Your task to perform on an android device: turn off notifications in google photos Image 0: 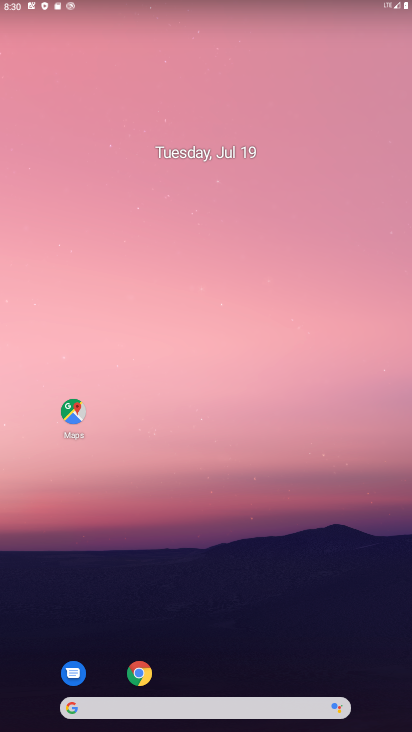
Step 0: drag from (377, 684) to (246, 19)
Your task to perform on an android device: turn off notifications in google photos Image 1: 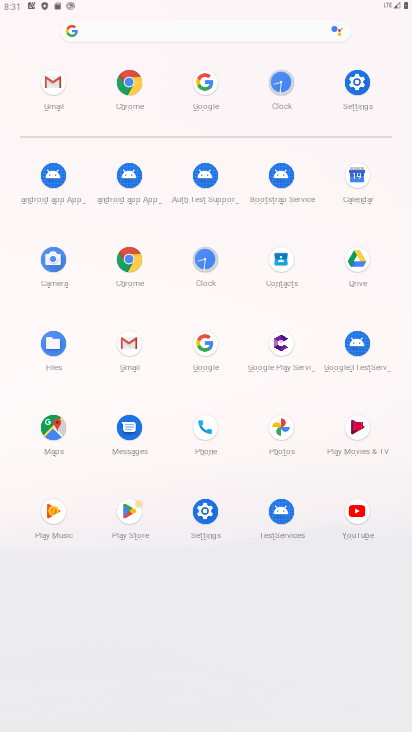
Step 1: click (278, 426)
Your task to perform on an android device: turn off notifications in google photos Image 2: 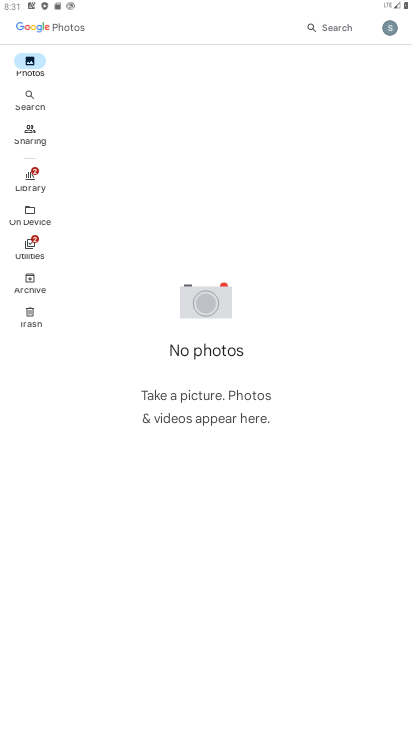
Step 2: click (392, 27)
Your task to perform on an android device: turn off notifications in google photos Image 3: 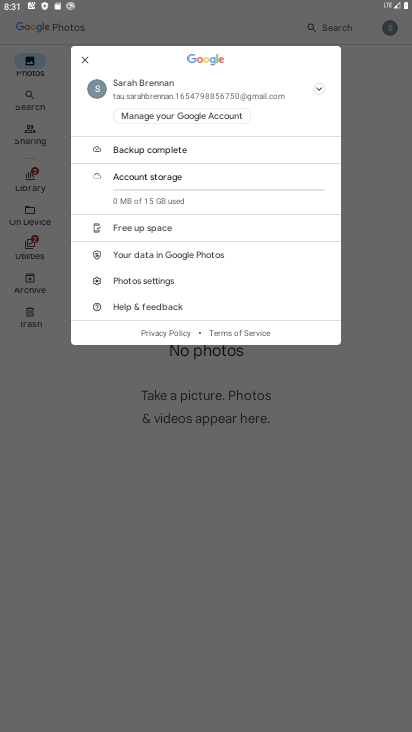
Step 3: click (146, 279)
Your task to perform on an android device: turn off notifications in google photos Image 4: 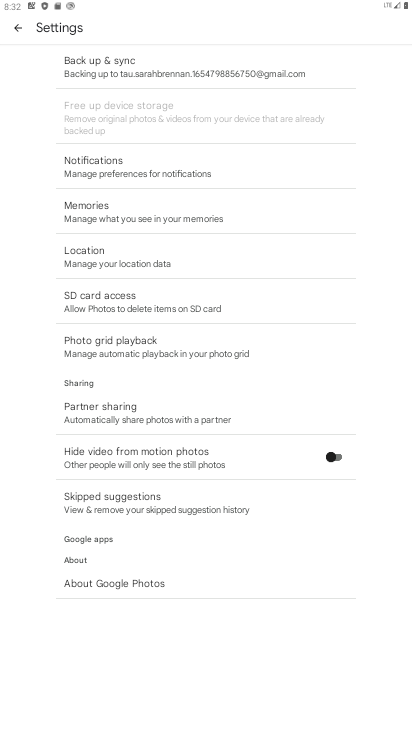
Step 4: click (102, 175)
Your task to perform on an android device: turn off notifications in google photos Image 5: 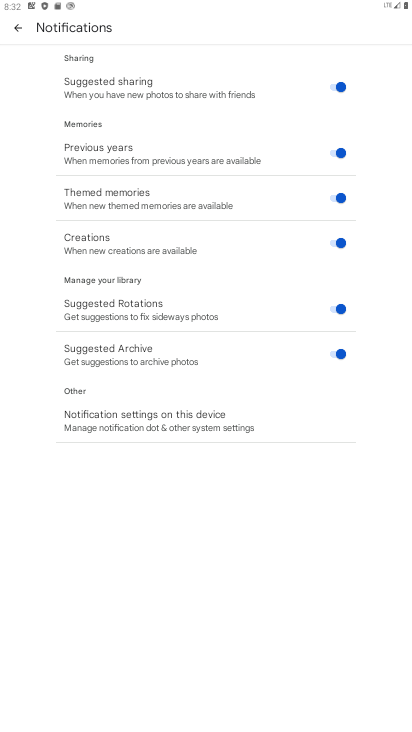
Step 5: click (330, 85)
Your task to perform on an android device: turn off notifications in google photos Image 6: 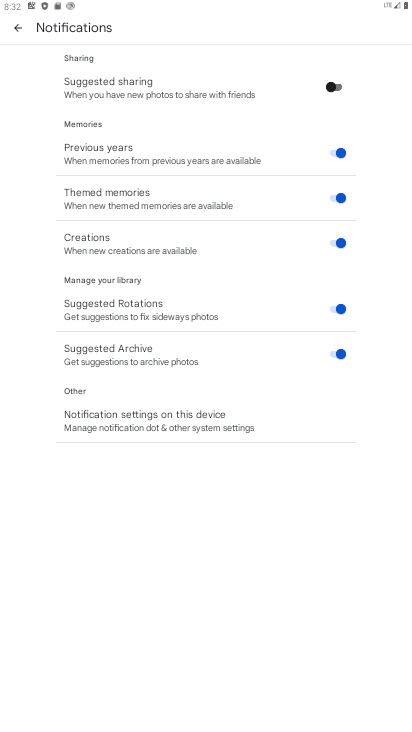
Step 6: task complete